Your task to perform on an android device: install app "Facebook Messenger" Image 0: 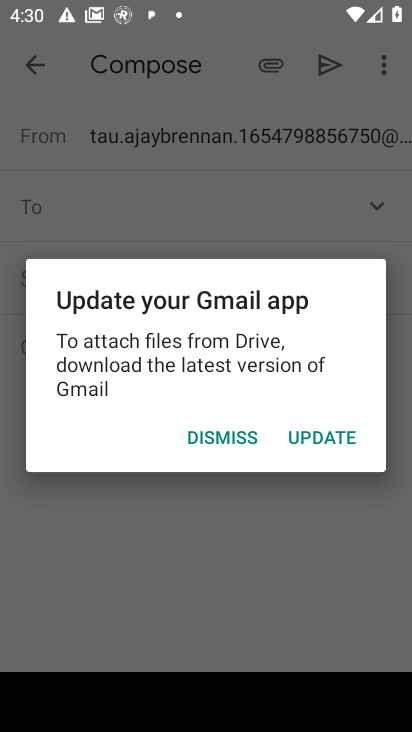
Step 0: press home button
Your task to perform on an android device: install app "Facebook Messenger" Image 1: 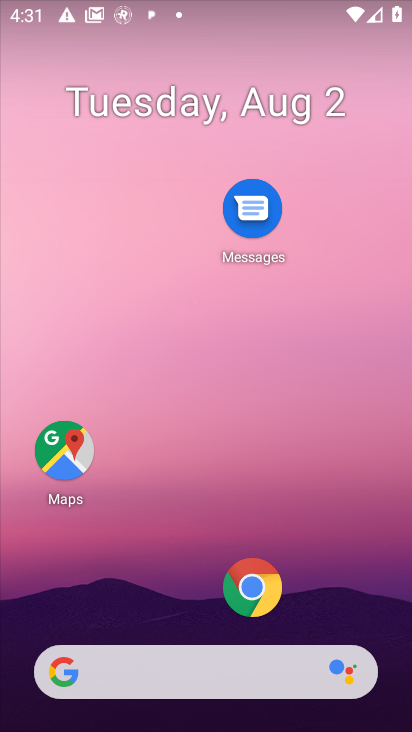
Step 1: drag from (163, 596) to (157, 82)
Your task to perform on an android device: install app "Facebook Messenger" Image 2: 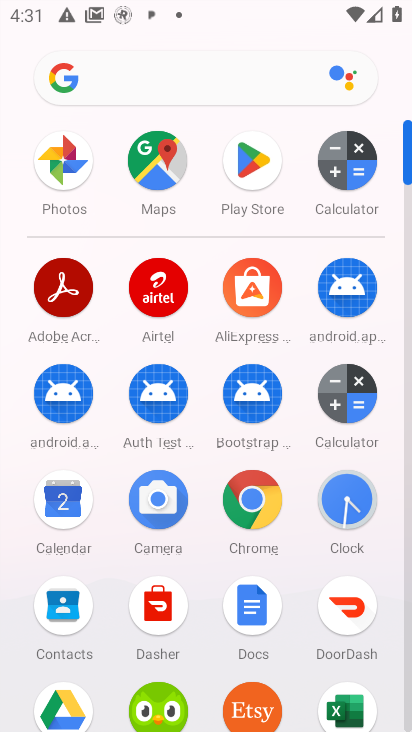
Step 2: click (247, 147)
Your task to perform on an android device: install app "Facebook Messenger" Image 3: 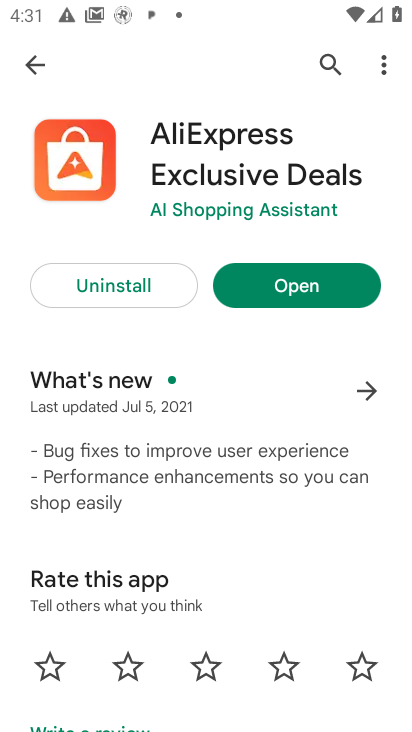
Step 3: click (333, 53)
Your task to perform on an android device: install app "Facebook Messenger" Image 4: 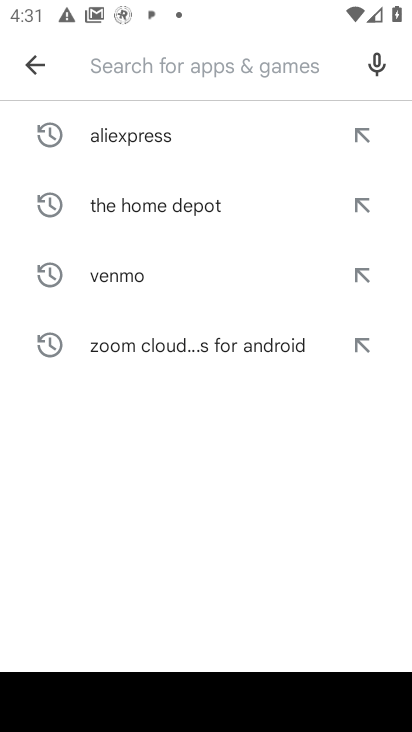
Step 4: type "Facebook Messenger"
Your task to perform on an android device: install app "Facebook Messenger" Image 5: 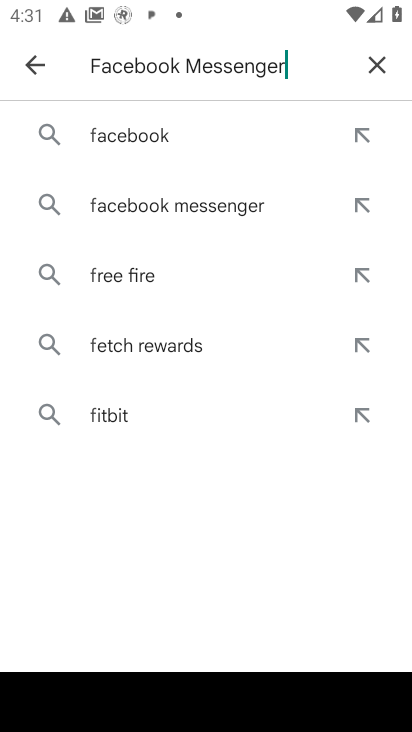
Step 5: type ""
Your task to perform on an android device: install app "Facebook Messenger" Image 6: 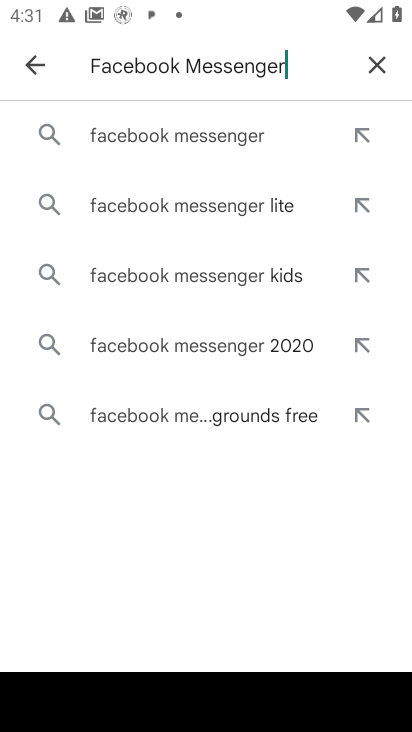
Step 6: click (143, 144)
Your task to perform on an android device: install app "Facebook Messenger" Image 7: 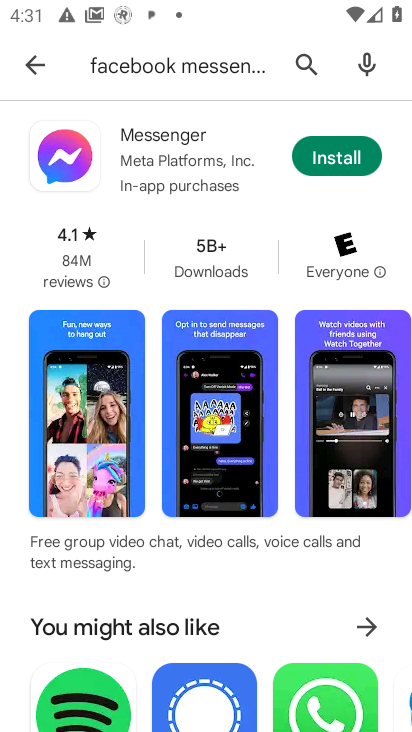
Step 7: click (313, 165)
Your task to perform on an android device: install app "Facebook Messenger" Image 8: 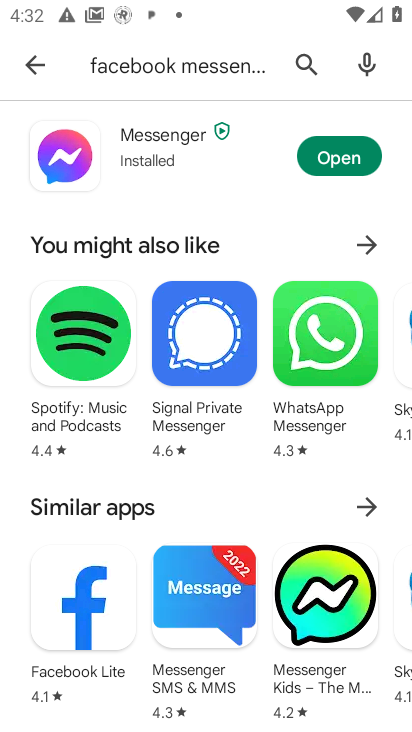
Step 8: task complete